Your task to perform on an android device: turn off priority inbox in the gmail app Image 0: 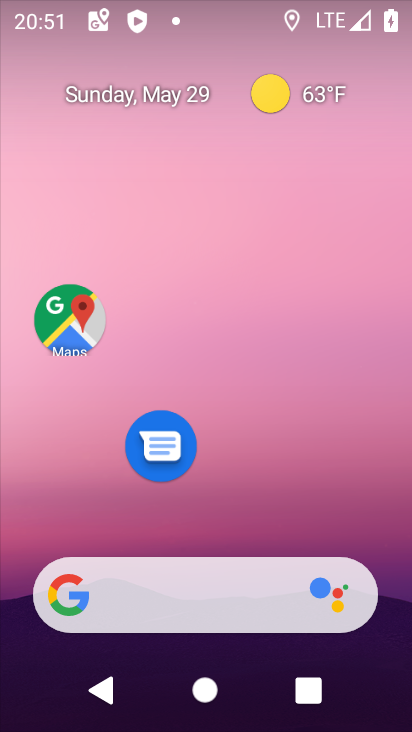
Step 0: drag from (225, 527) to (241, 218)
Your task to perform on an android device: turn off priority inbox in the gmail app Image 1: 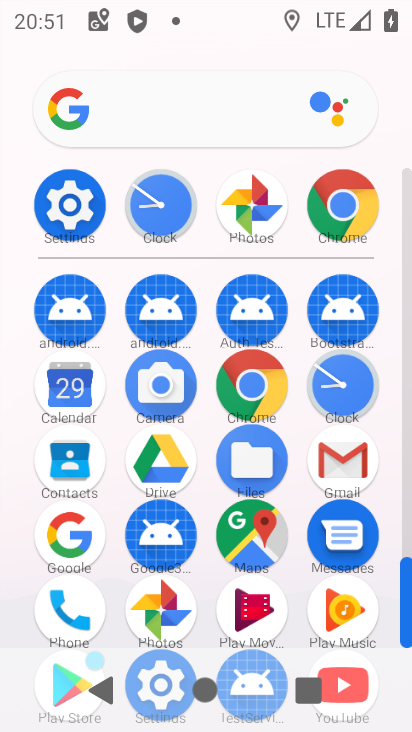
Step 1: click (359, 450)
Your task to perform on an android device: turn off priority inbox in the gmail app Image 2: 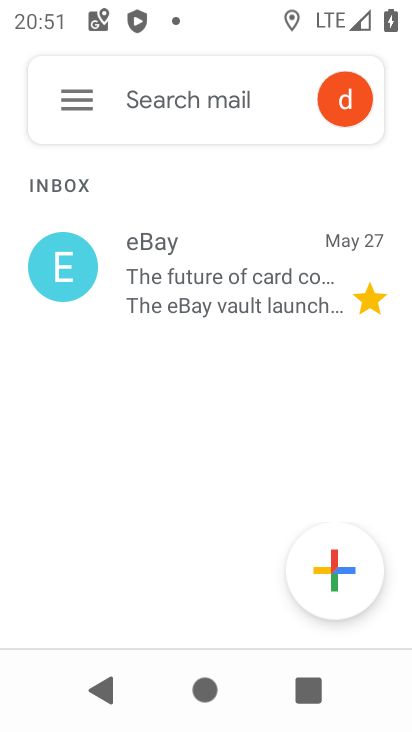
Step 2: click (58, 107)
Your task to perform on an android device: turn off priority inbox in the gmail app Image 3: 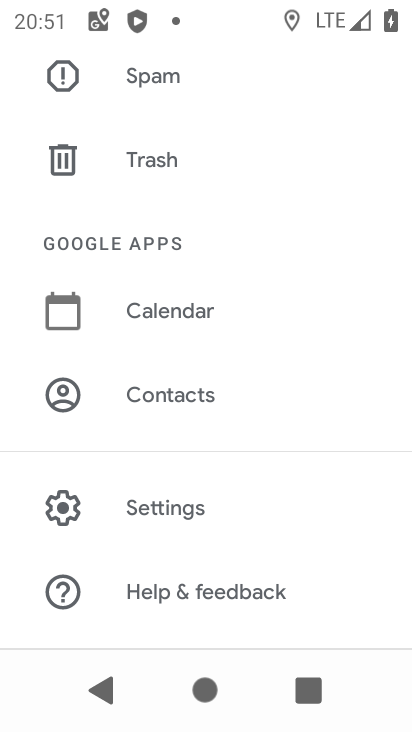
Step 3: drag from (179, 543) to (157, 374)
Your task to perform on an android device: turn off priority inbox in the gmail app Image 4: 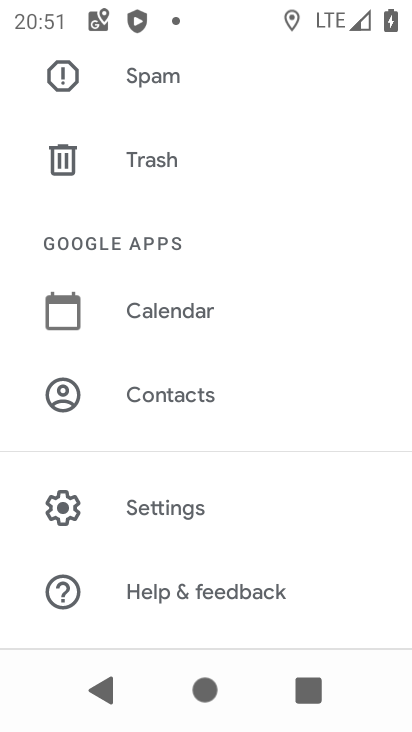
Step 4: click (152, 493)
Your task to perform on an android device: turn off priority inbox in the gmail app Image 5: 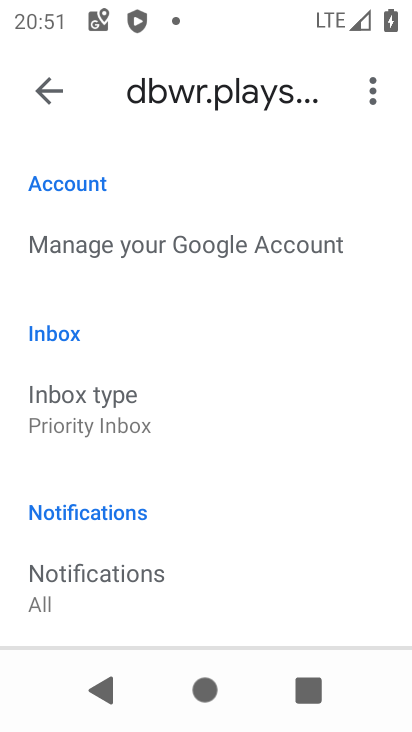
Step 5: click (148, 402)
Your task to perform on an android device: turn off priority inbox in the gmail app Image 6: 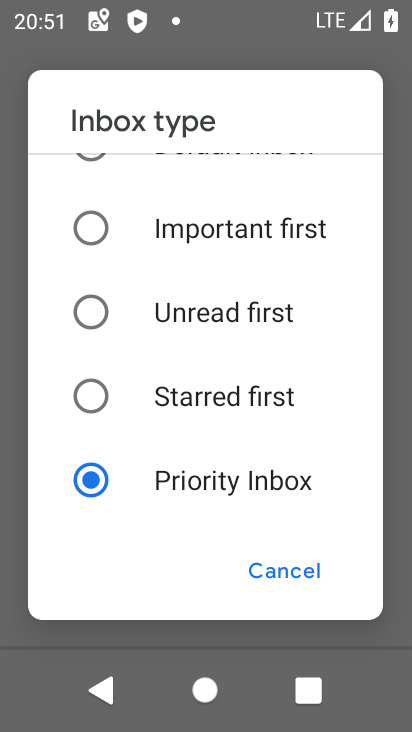
Step 6: drag from (172, 311) to (184, 370)
Your task to perform on an android device: turn off priority inbox in the gmail app Image 7: 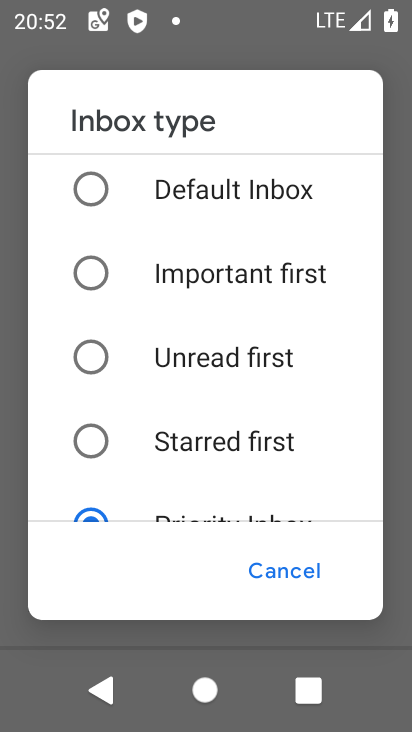
Step 7: click (172, 202)
Your task to perform on an android device: turn off priority inbox in the gmail app Image 8: 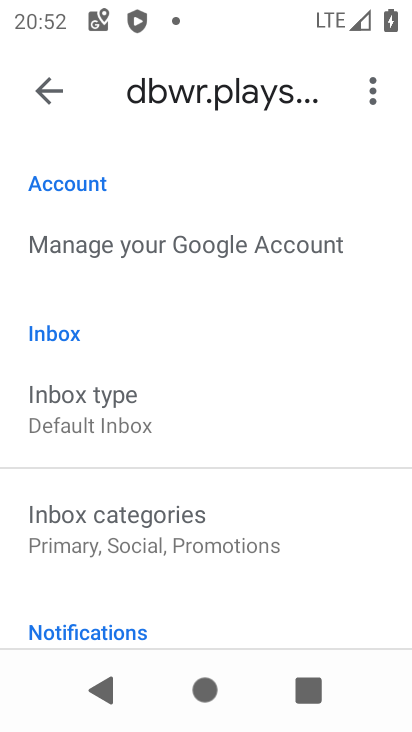
Step 8: task complete